Your task to perform on an android device: empty trash in google photos Image 0: 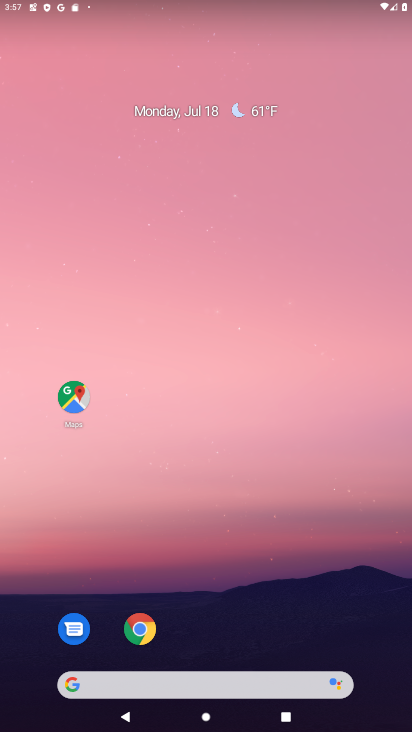
Step 0: drag from (181, 665) to (184, 312)
Your task to perform on an android device: empty trash in google photos Image 1: 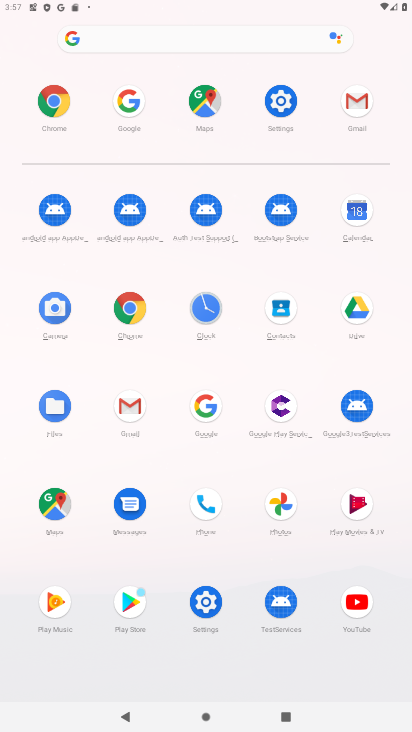
Step 1: click (282, 508)
Your task to perform on an android device: empty trash in google photos Image 2: 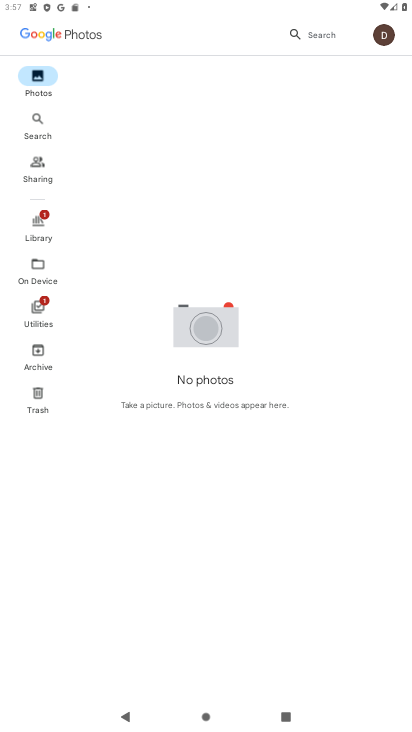
Step 2: click (38, 406)
Your task to perform on an android device: empty trash in google photos Image 3: 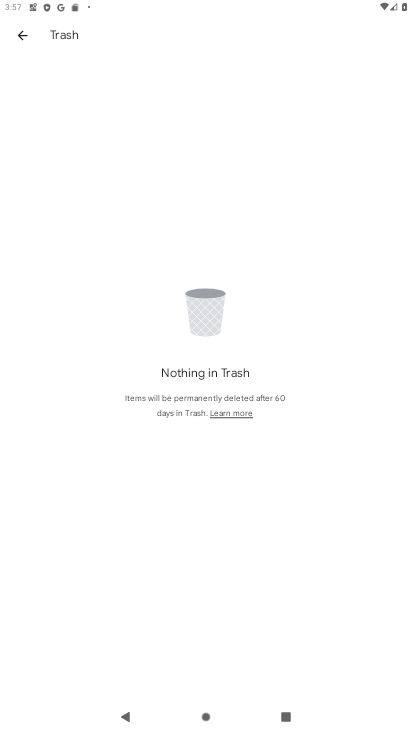
Step 3: task complete